Your task to perform on an android device: check out phone information Image 0: 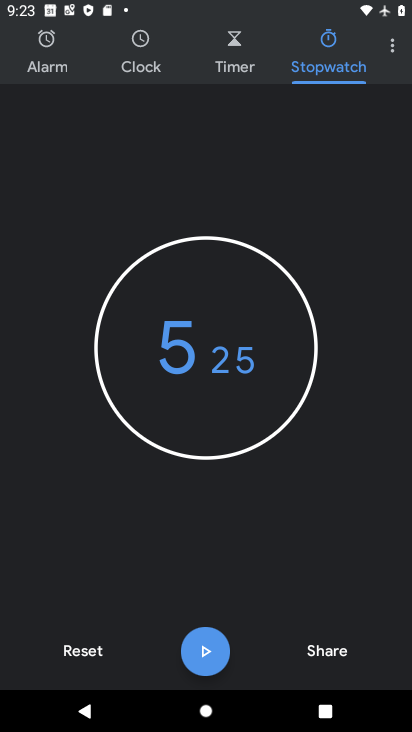
Step 0: press home button
Your task to perform on an android device: check out phone information Image 1: 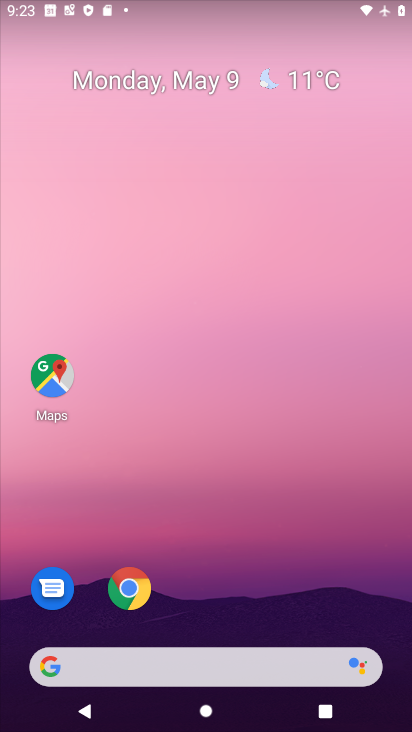
Step 1: drag from (193, 645) to (305, 124)
Your task to perform on an android device: check out phone information Image 2: 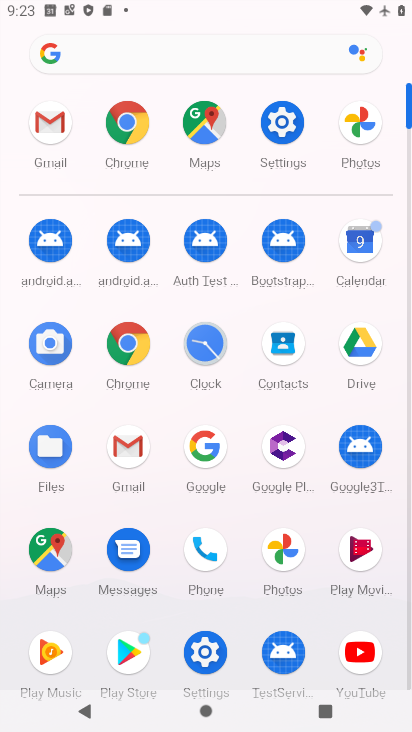
Step 2: click (284, 116)
Your task to perform on an android device: check out phone information Image 3: 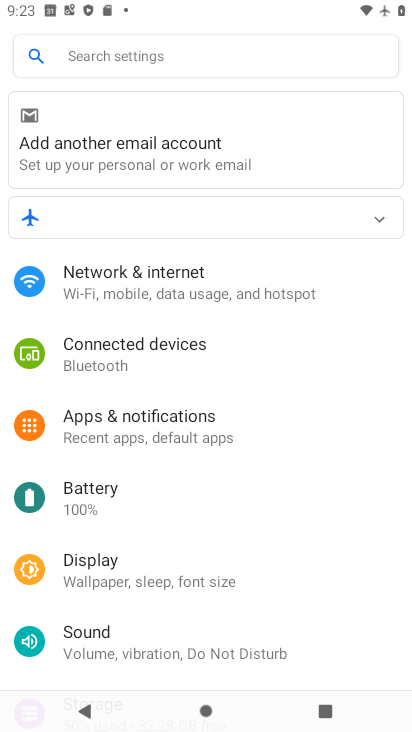
Step 3: drag from (222, 574) to (249, 235)
Your task to perform on an android device: check out phone information Image 4: 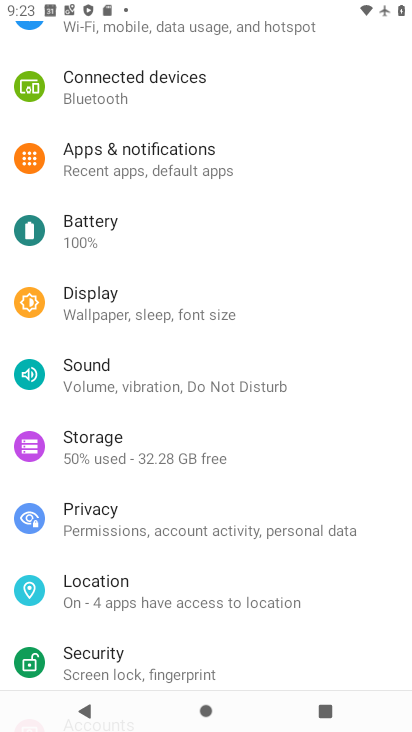
Step 4: drag from (147, 622) to (208, 342)
Your task to perform on an android device: check out phone information Image 5: 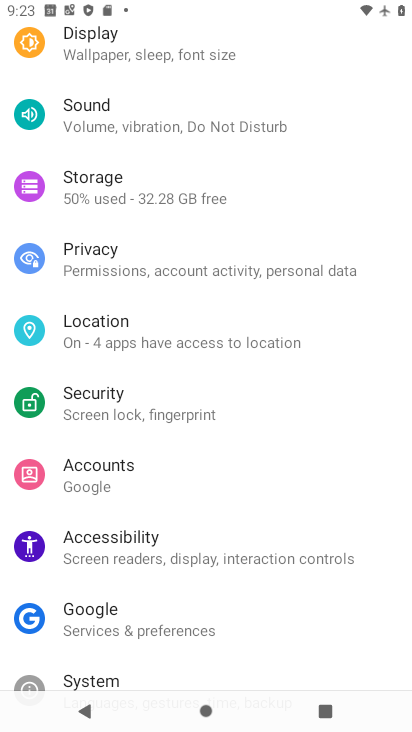
Step 5: drag from (86, 648) to (187, 313)
Your task to perform on an android device: check out phone information Image 6: 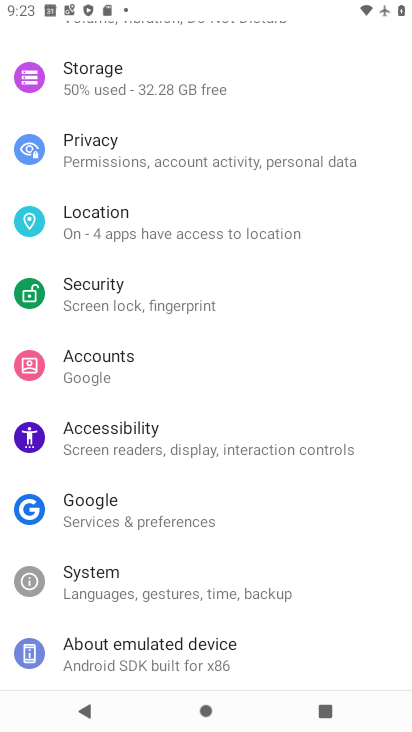
Step 6: click (151, 647)
Your task to perform on an android device: check out phone information Image 7: 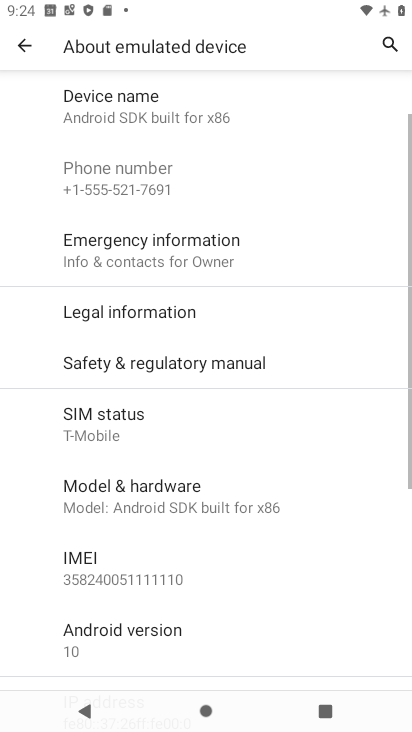
Step 7: task complete